Your task to perform on an android device: toggle javascript in the chrome app Image 0: 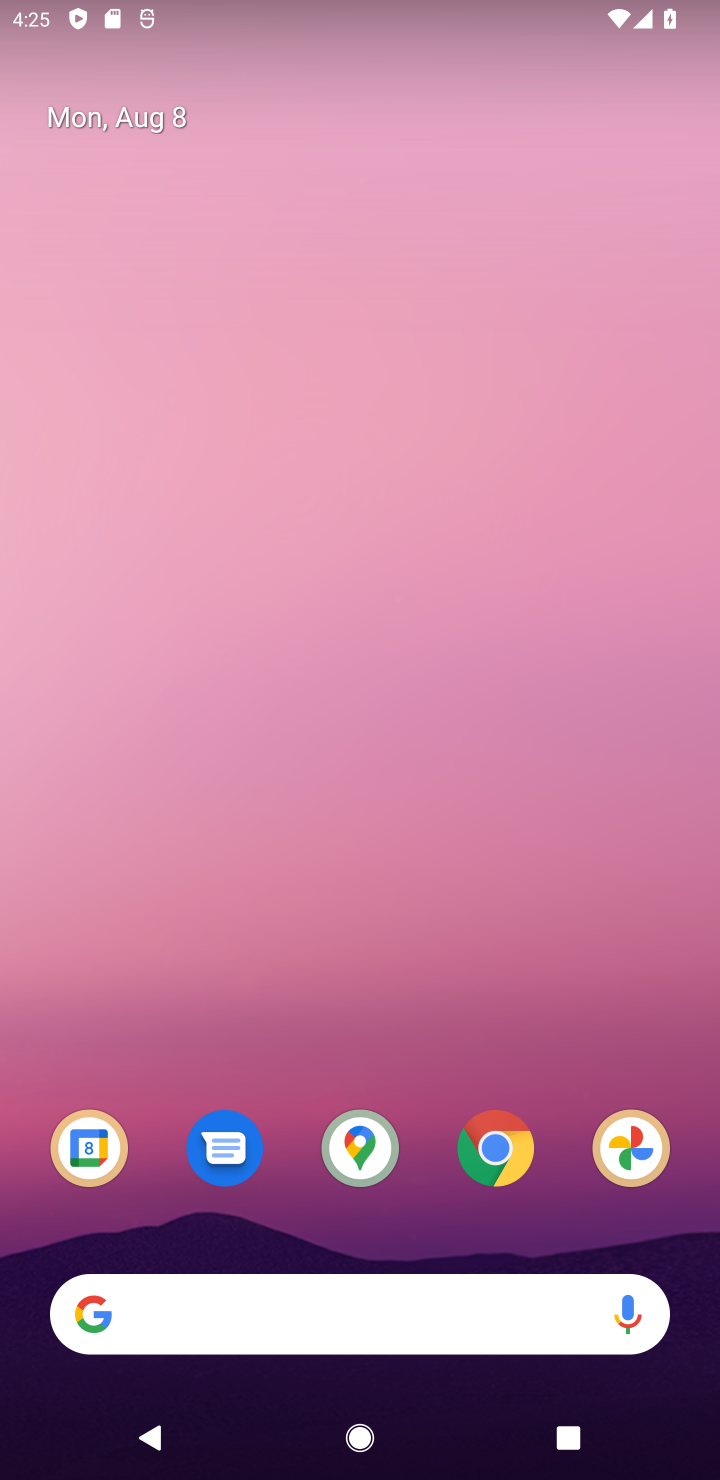
Step 0: drag from (216, 693) to (711, 610)
Your task to perform on an android device: toggle javascript in the chrome app Image 1: 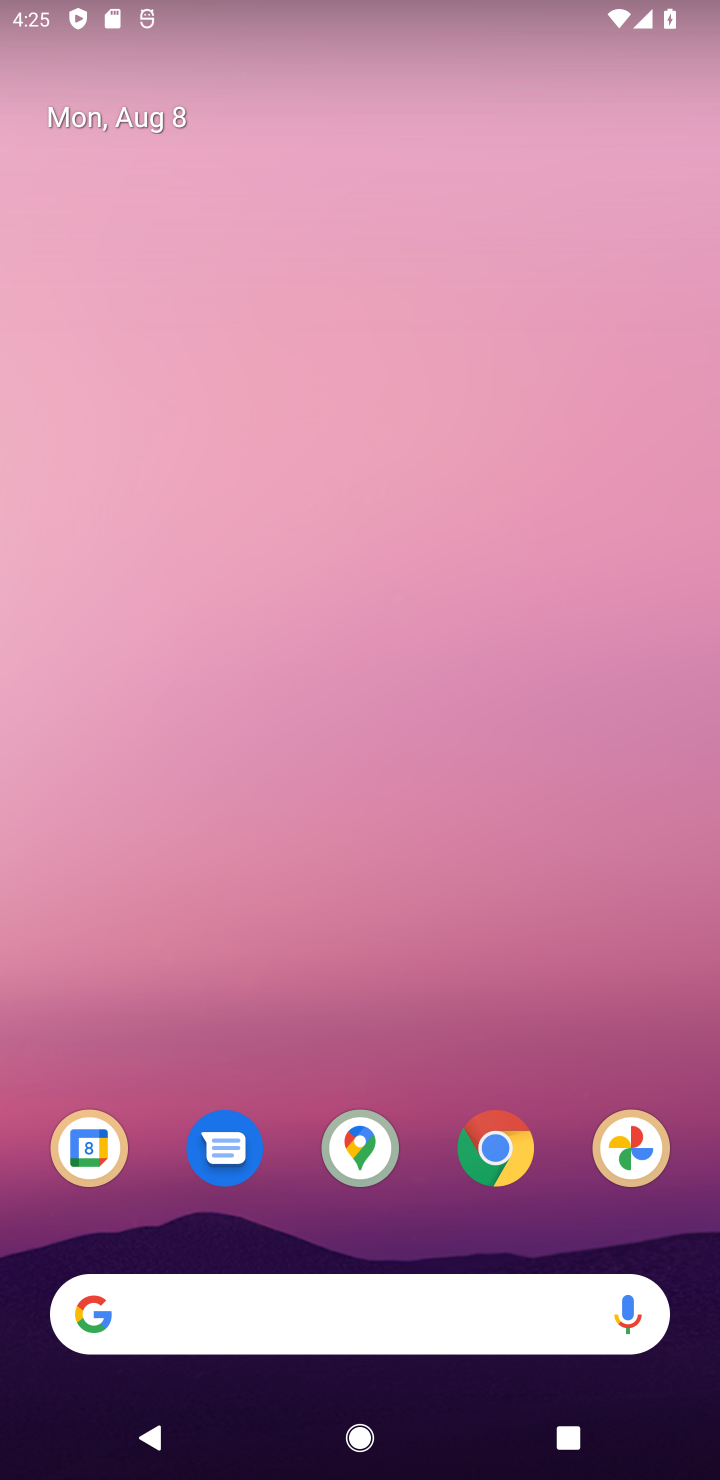
Step 1: drag from (365, 826) to (283, 33)
Your task to perform on an android device: toggle javascript in the chrome app Image 2: 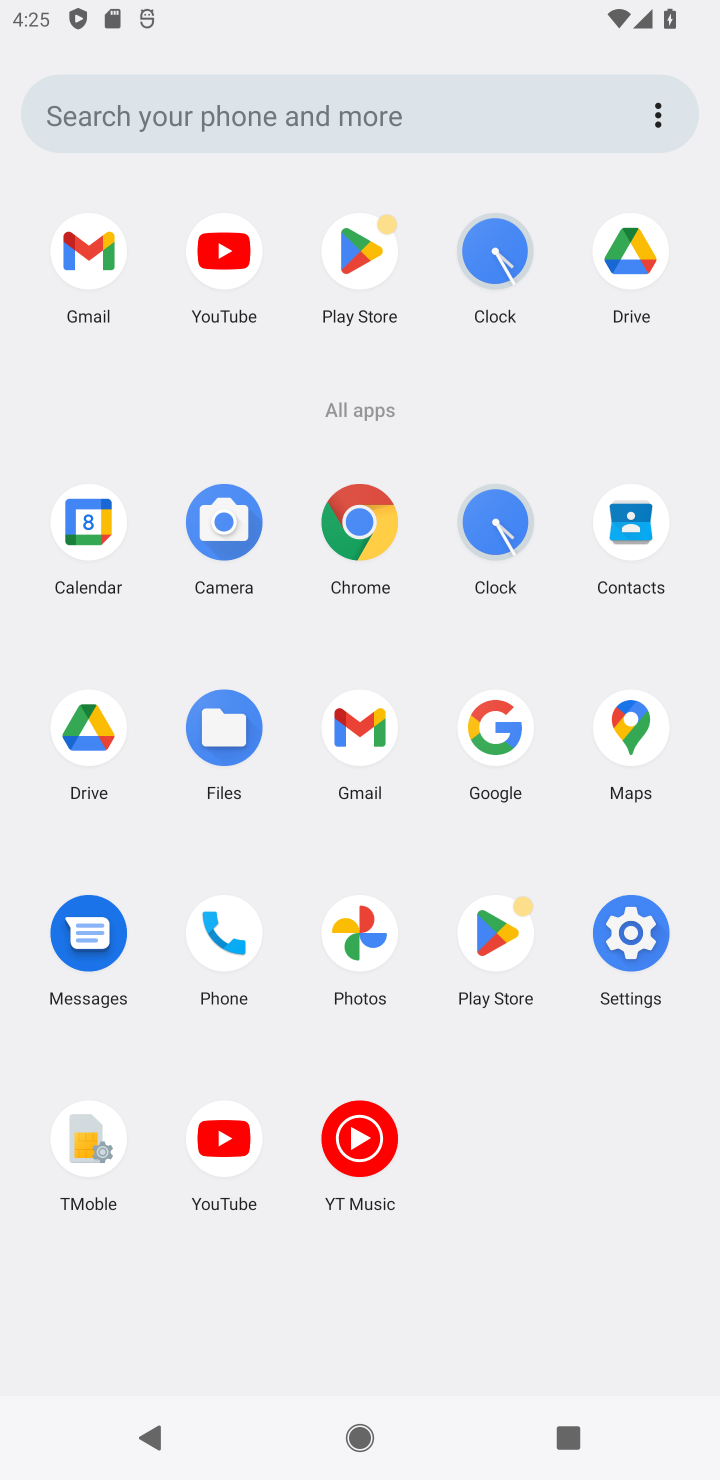
Step 2: click (337, 540)
Your task to perform on an android device: toggle javascript in the chrome app Image 3: 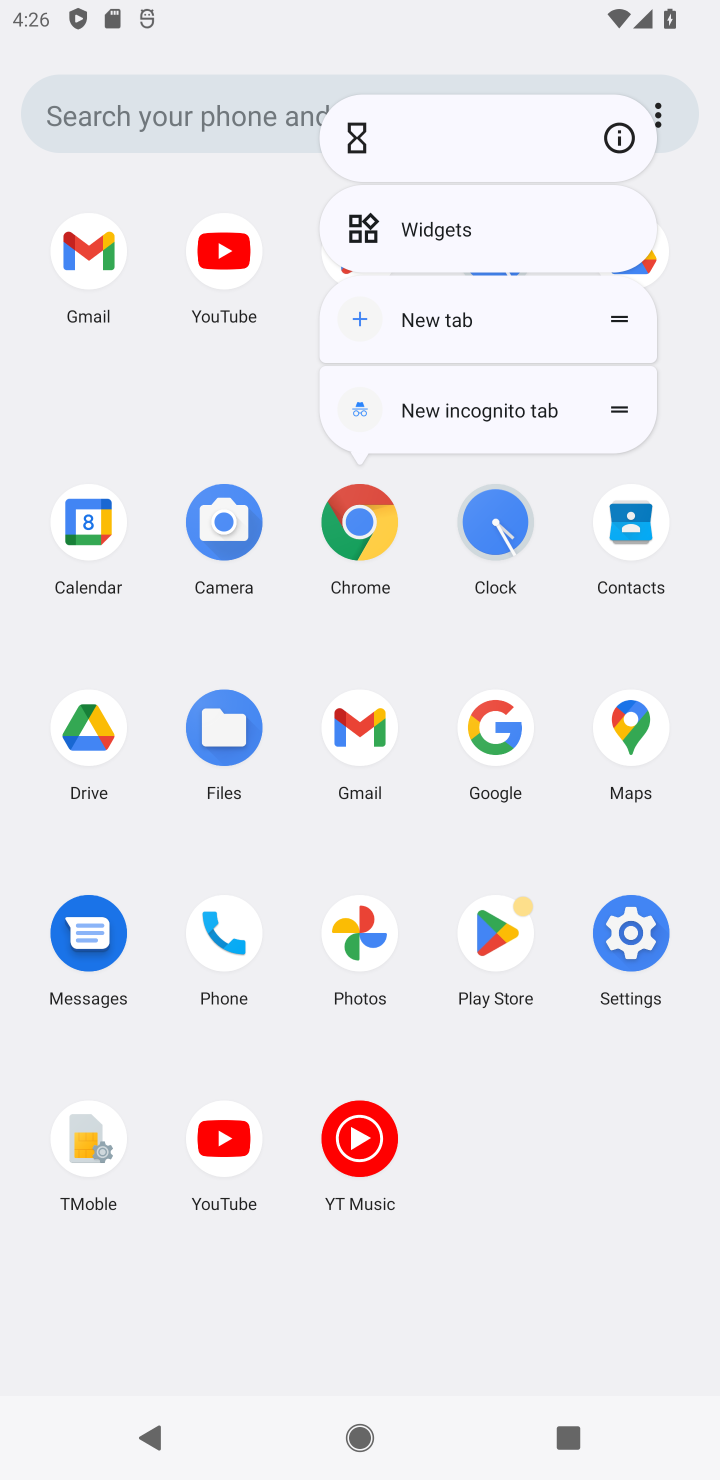
Step 3: click (337, 539)
Your task to perform on an android device: toggle javascript in the chrome app Image 4: 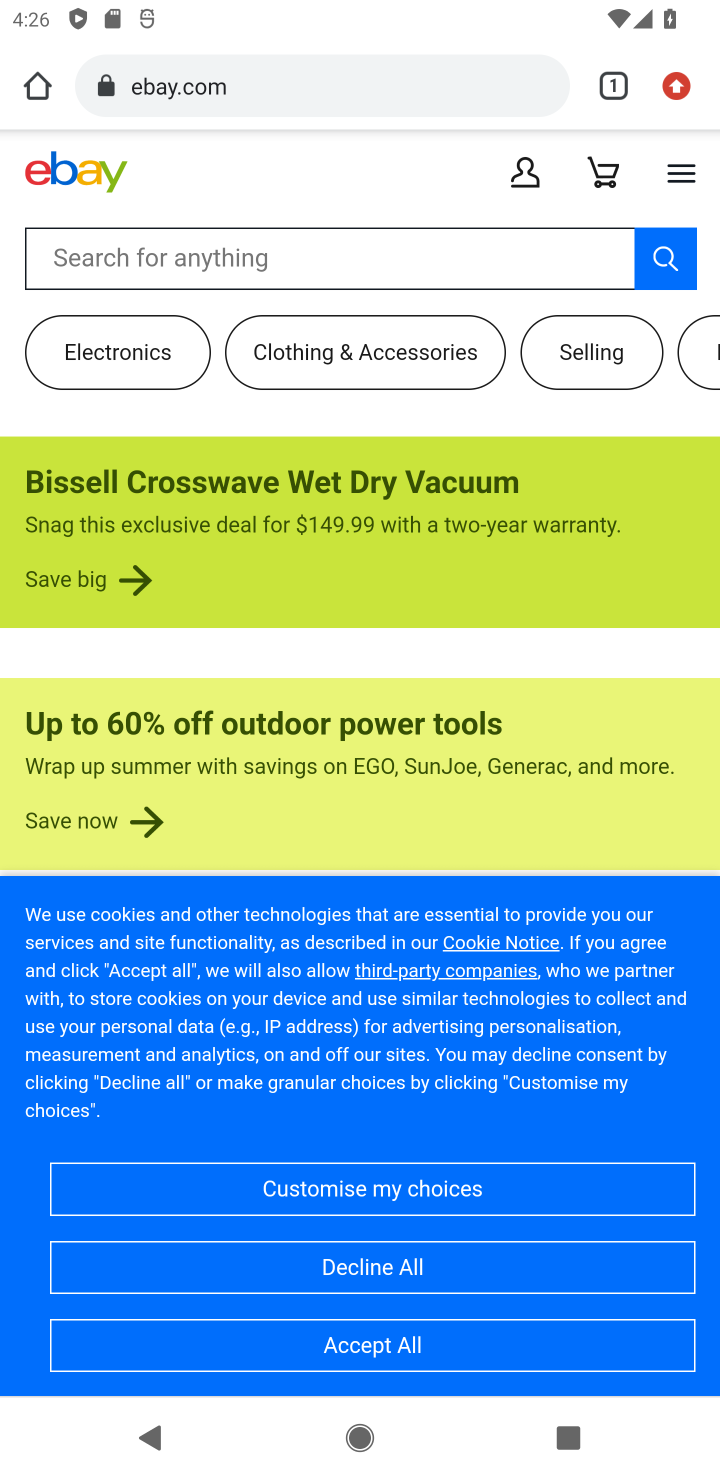
Step 4: click (703, 93)
Your task to perform on an android device: toggle javascript in the chrome app Image 5: 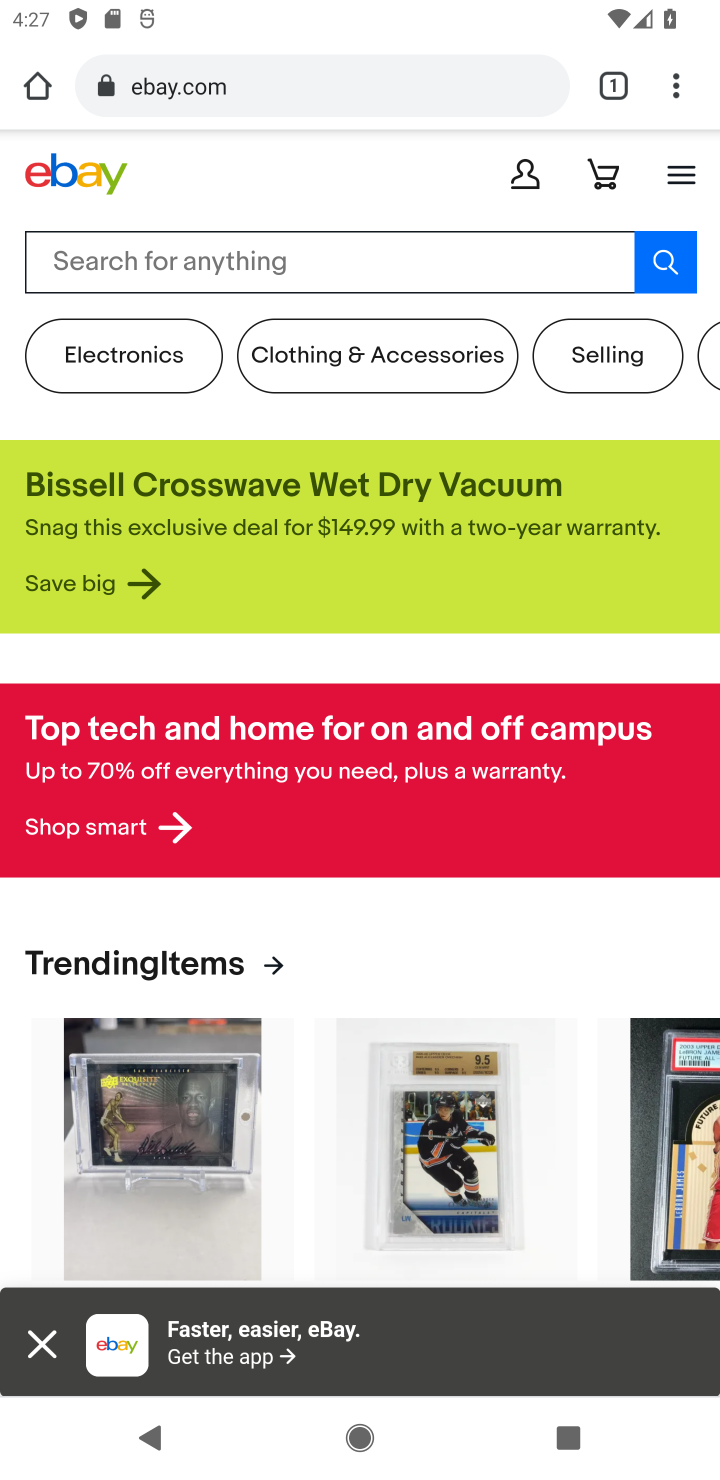
Step 5: drag from (672, 96) to (463, 1149)
Your task to perform on an android device: toggle javascript in the chrome app Image 6: 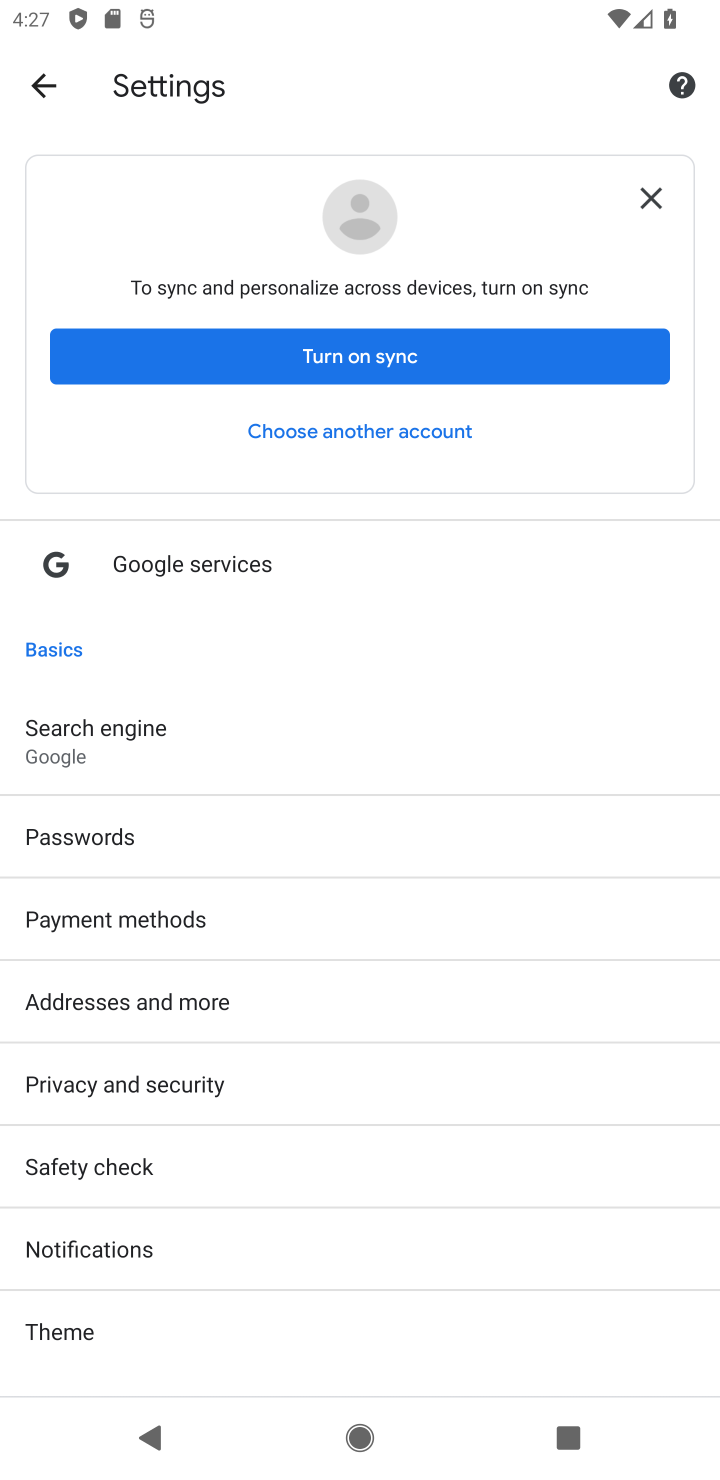
Step 6: drag from (484, 1225) to (527, 75)
Your task to perform on an android device: toggle javascript in the chrome app Image 7: 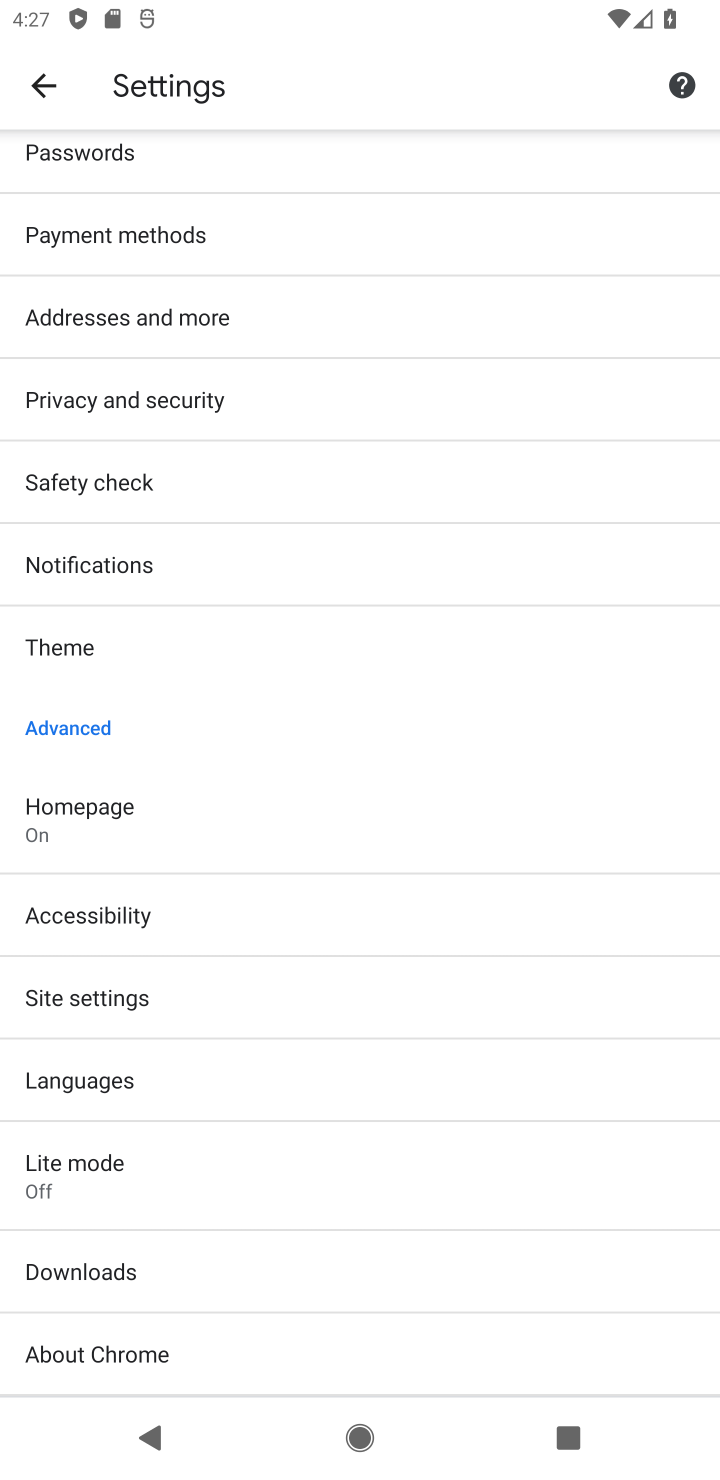
Step 7: click (94, 1018)
Your task to perform on an android device: toggle javascript in the chrome app Image 8: 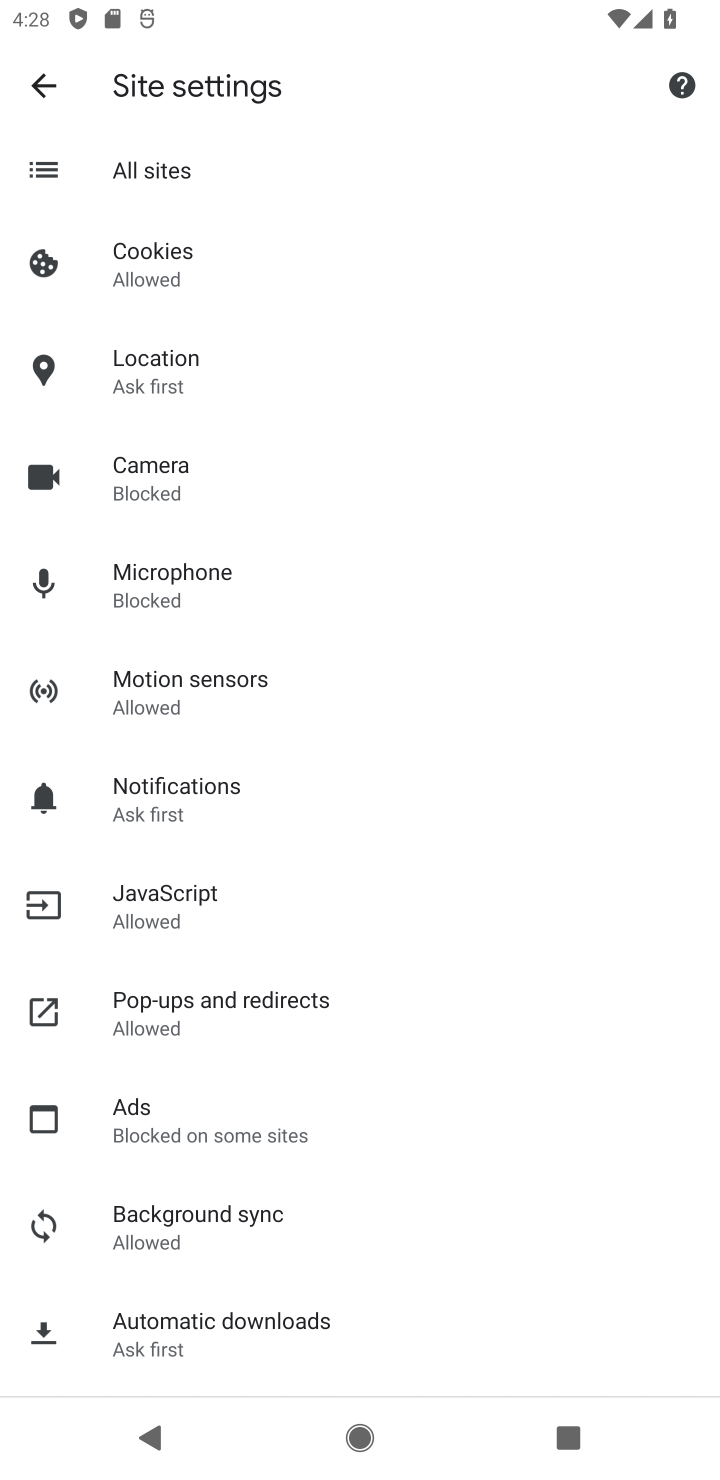
Step 8: click (182, 921)
Your task to perform on an android device: toggle javascript in the chrome app Image 9: 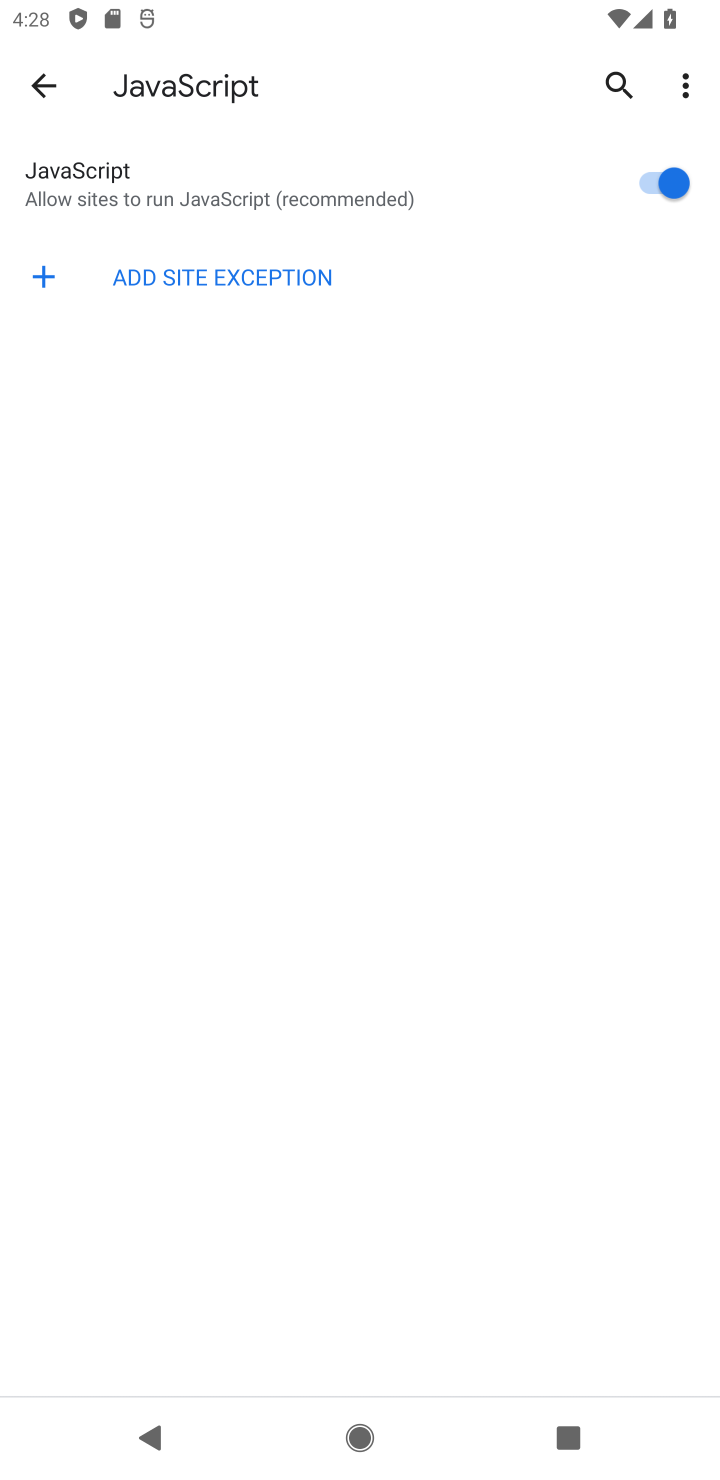
Step 9: click (679, 207)
Your task to perform on an android device: toggle javascript in the chrome app Image 10: 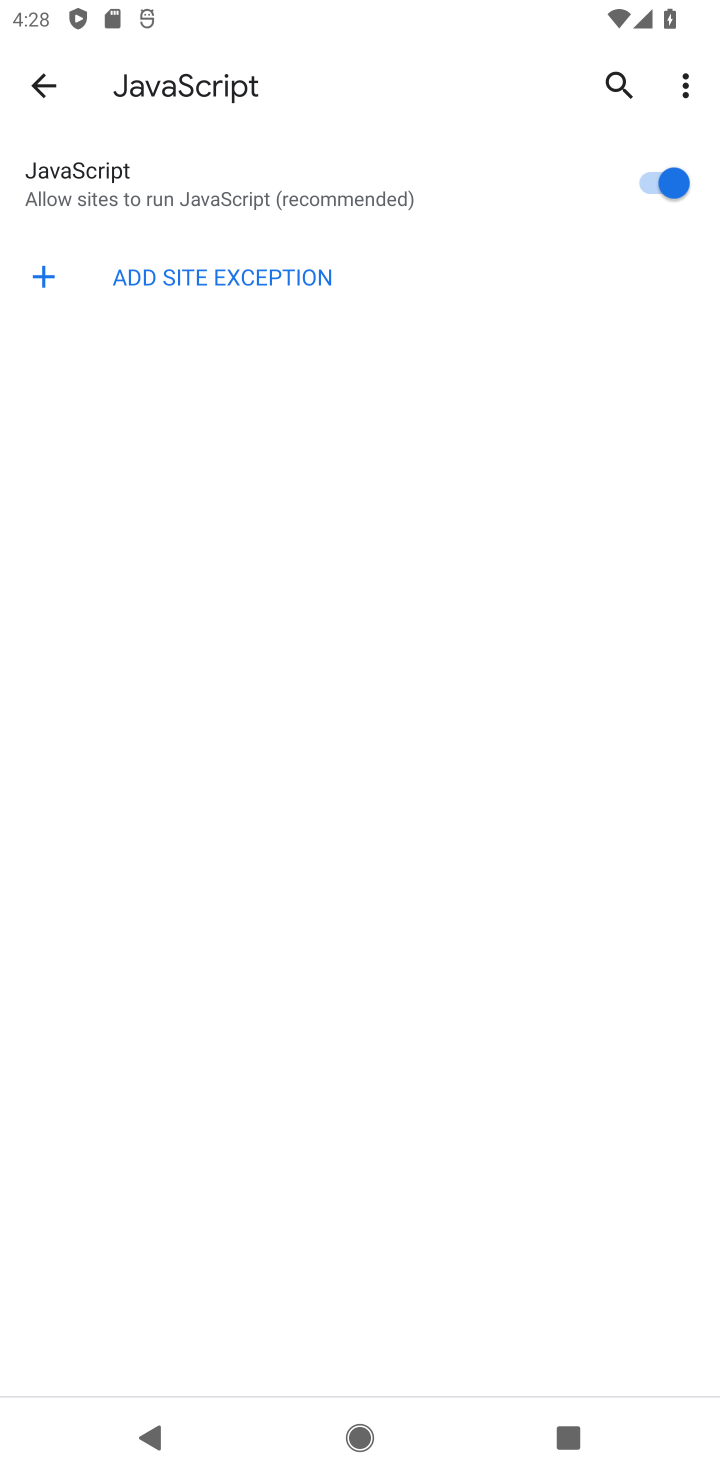
Step 10: task complete